Your task to perform on an android device: add a contact Image 0: 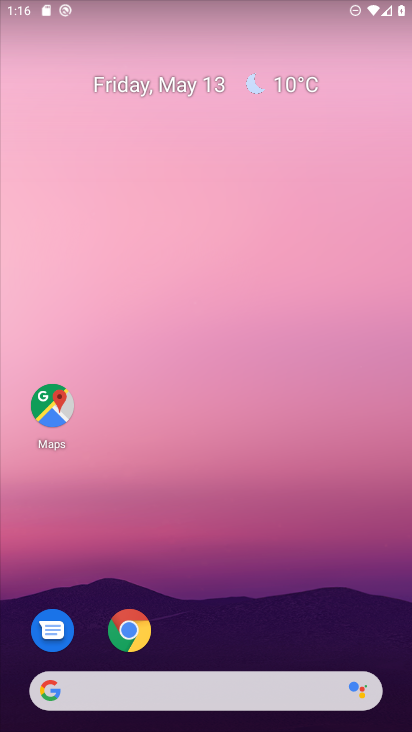
Step 0: drag from (223, 686) to (226, 158)
Your task to perform on an android device: add a contact Image 1: 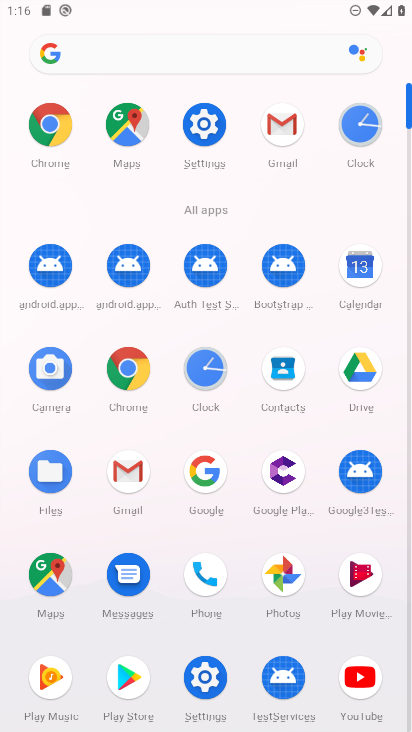
Step 1: click (281, 366)
Your task to perform on an android device: add a contact Image 2: 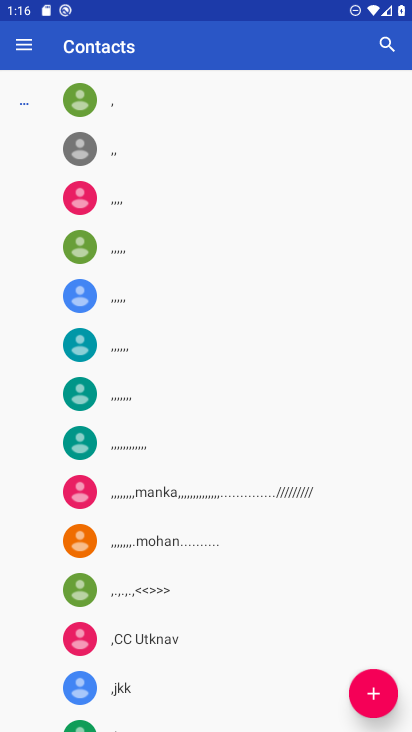
Step 2: click (370, 685)
Your task to perform on an android device: add a contact Image 3: 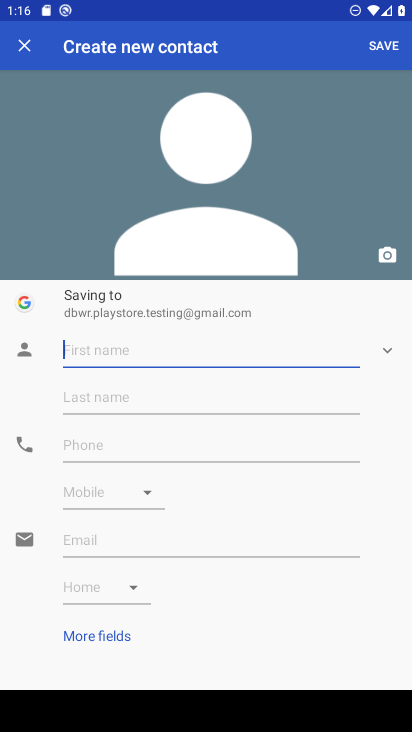
Step 3: type "skdvsd"
Your task to perform on an android device: add a contact Image 4: 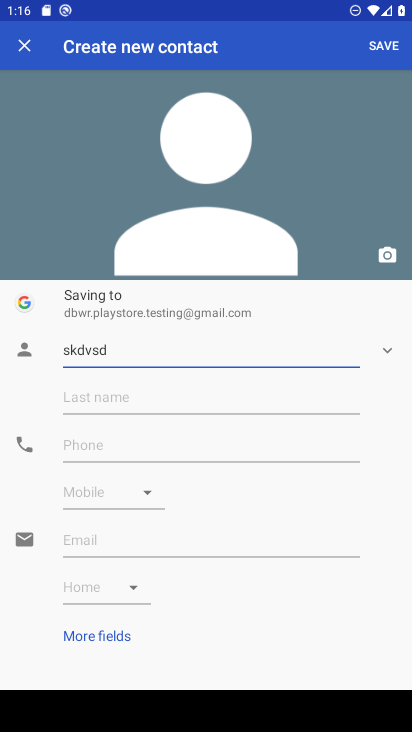
Step 4: click (223, 441)
Your task to perform on an android device: add a contact Image 5: 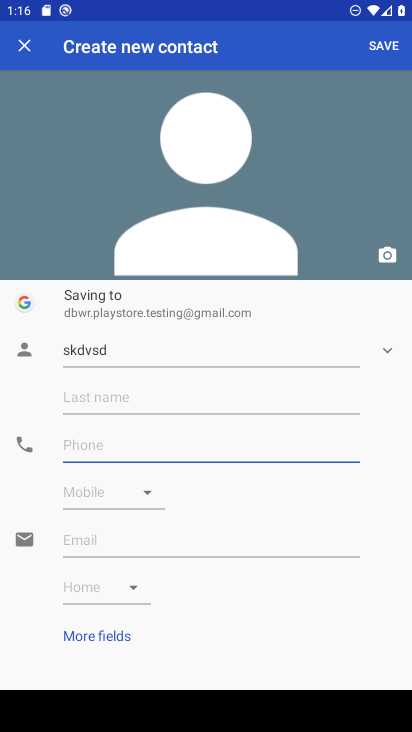
Step 5: type "3ry93288283"
Your task to perform on an android device: add a contact Image 6: 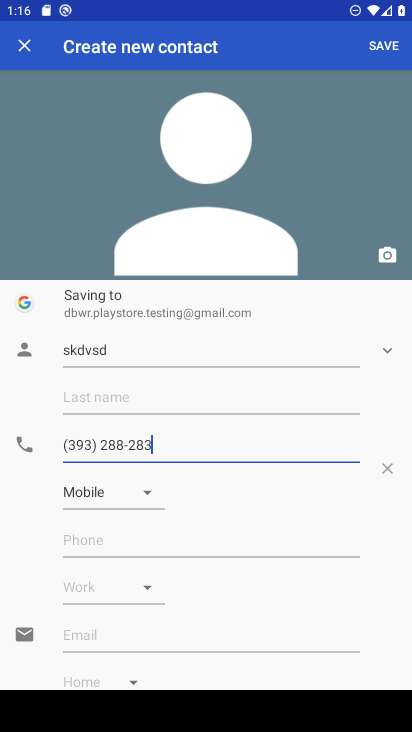
Step 6: click (389, 48)
Your task to perform on an android device: add a contact Image 7: 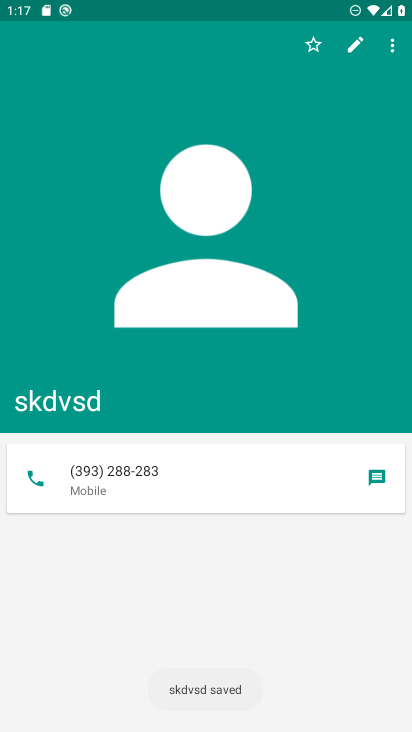
Step 7: task complete